Your task to perform on an android device: check storage Image 0: 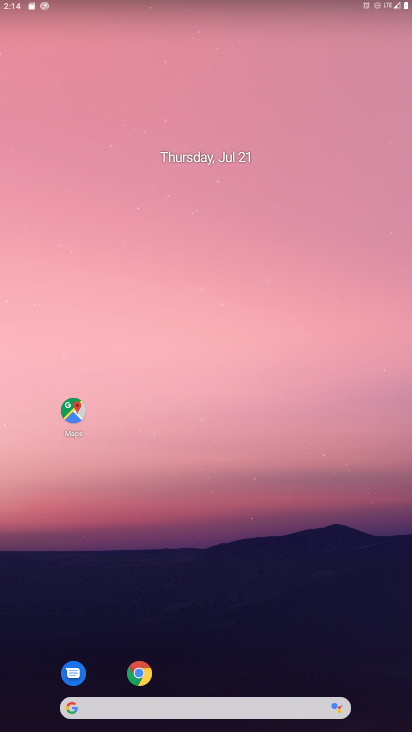
Step 0: drag from (201, 672) to (210, 398)
Your task to perform on an android device: check storage Image 1: 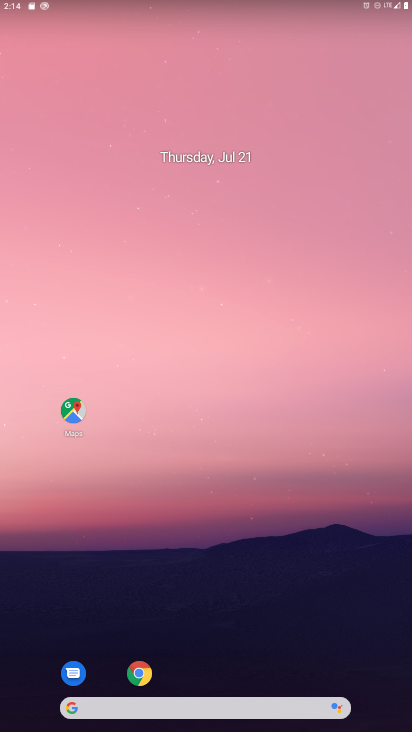
Step 1: drag from (203, 675) to (205, 226)
Your task to perform on an android device: check storage Image 2: 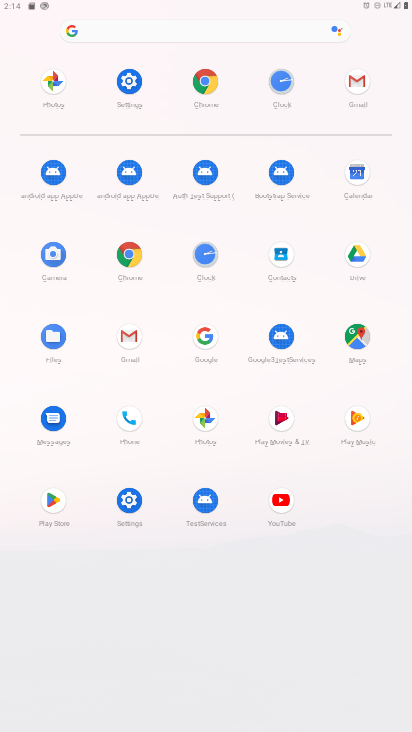
Step 2: click (122, 71)
Your task to perform on an android device: check storage Image 3: 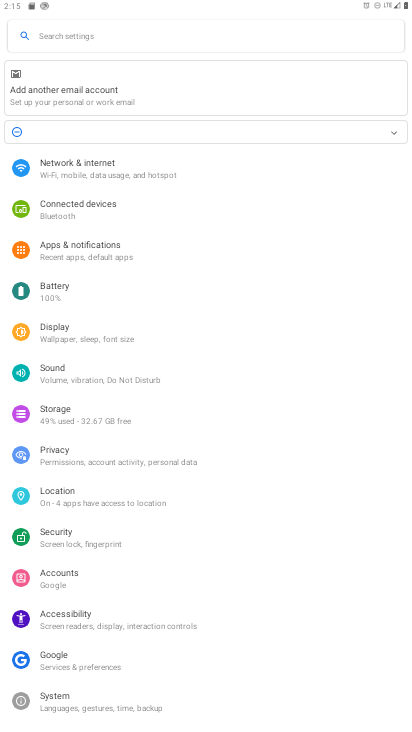
Step 3: click (97, 419)
Your task to perform on an android device: check storage Image 4: 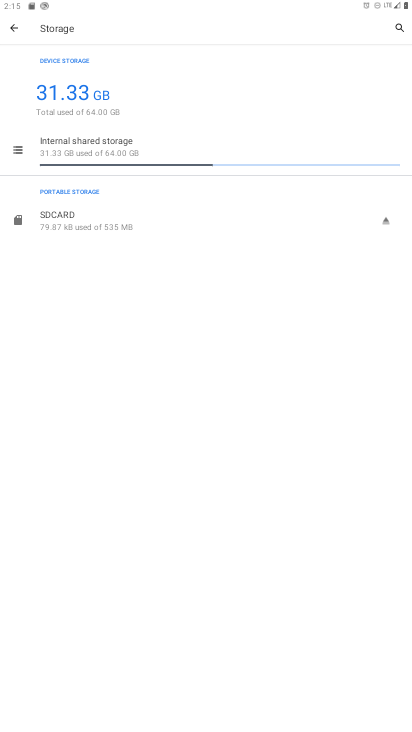
Step 4: click (97, 419)
Your task to perform on an android device: check storage Image 5: 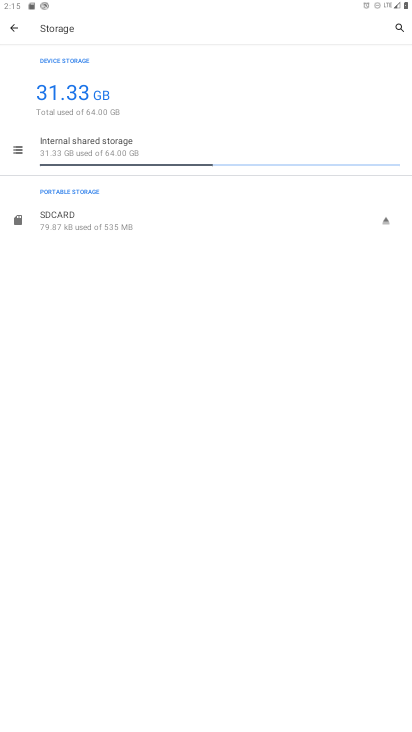
Step 5: click (97, 419)
Your task to perform on an android device: check storage Image 6: 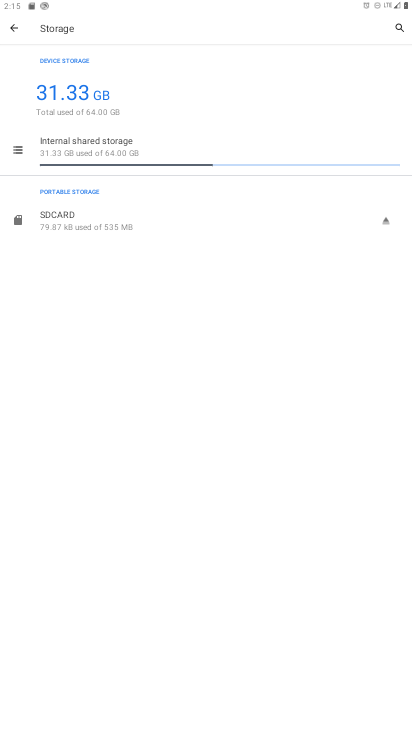
Step 6: click (97, 419)
Your task to perform on an android device: check storage Image 7: 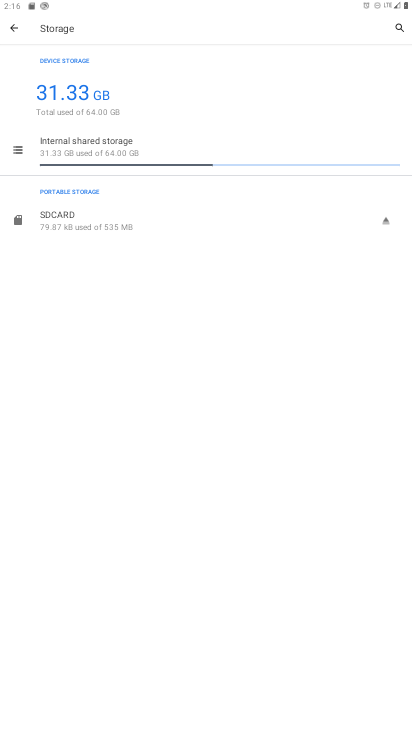
Step 7: task complete